Your task to perform on an android device: turn smart compose on in the gmail app Image 0: 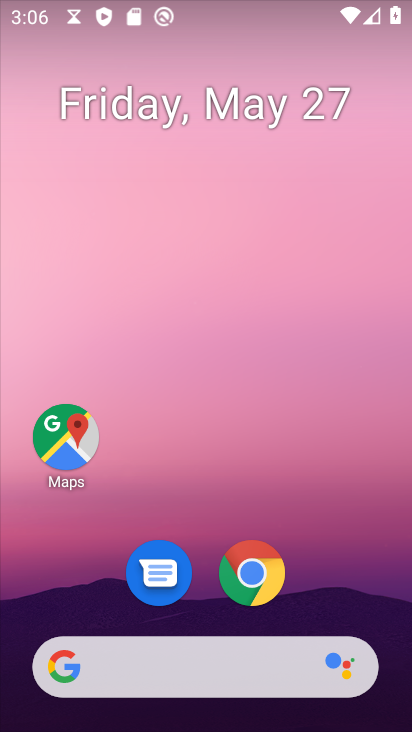
Step 0: drag from (306, 613) to (335, 23)
Your task to perform on an android device: turn smart compose on in the gmail app Image 1: 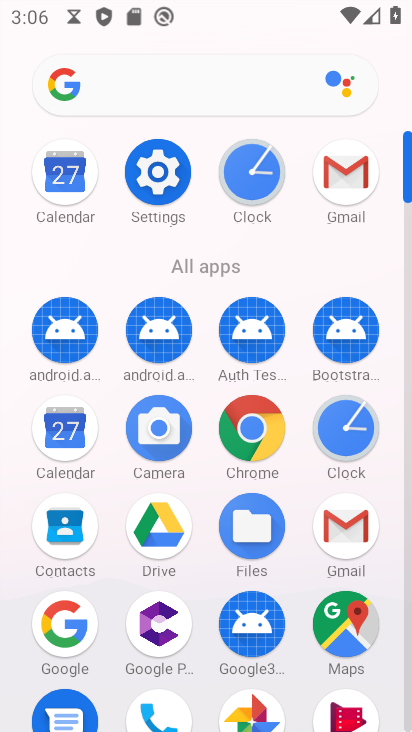
Step 1: click (354, 174)
Your task to perform on an android device: turn smart compose on in the gmail app Image 2: 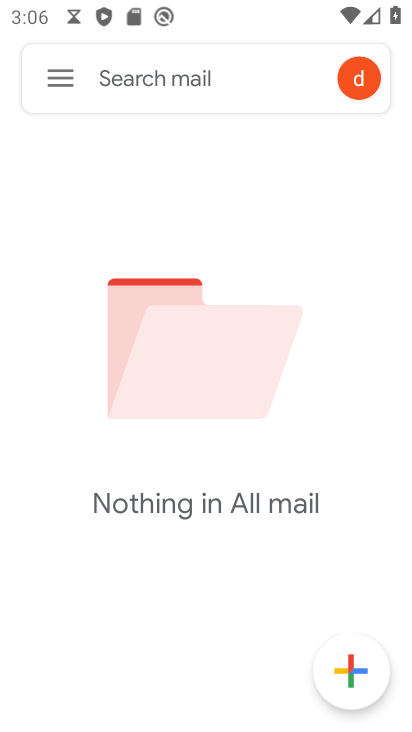
Step 2: click (55, 82)
Your task to perform on an android device: turn smart compose on in the gmail app Image 3: 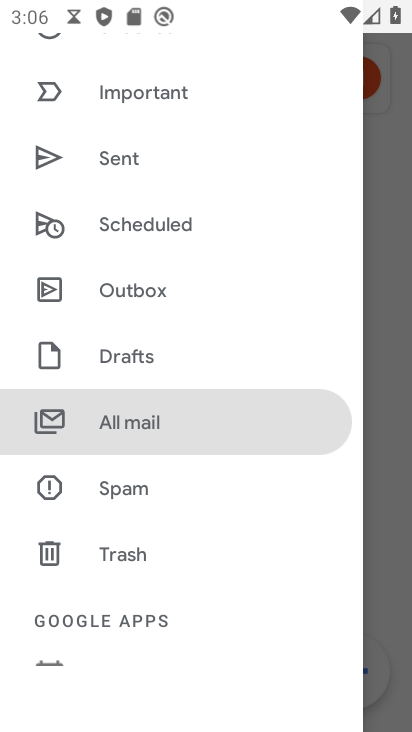
Step 3: drag from (133, 557) to (145, 109)
Your task to perform on an android device: turn smart compose on in the gmail app Image 4: 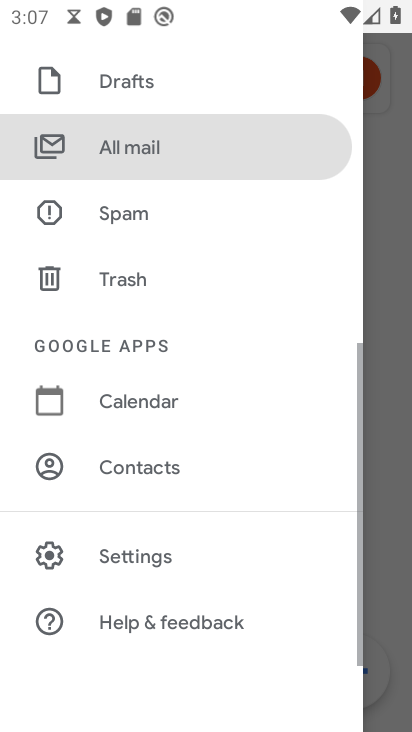
Step 4: click (181, 545)
Your task to perform on an android device: turn smart compose on in the gmail app Image 5: 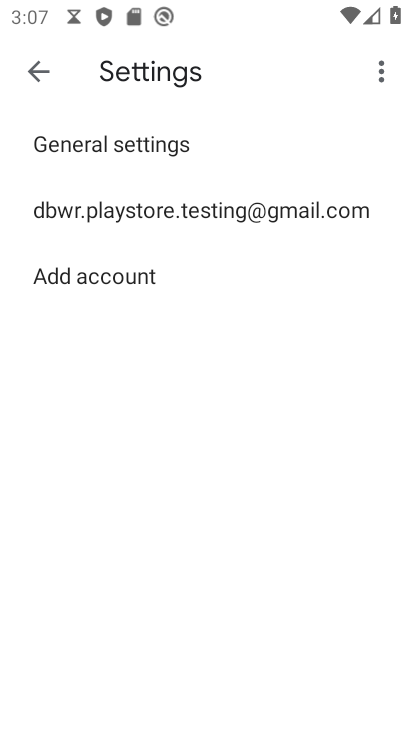
Step 5: click (208, 208)
Your task to perform on an android device: turn smart compose on in the gmail app Image 6: 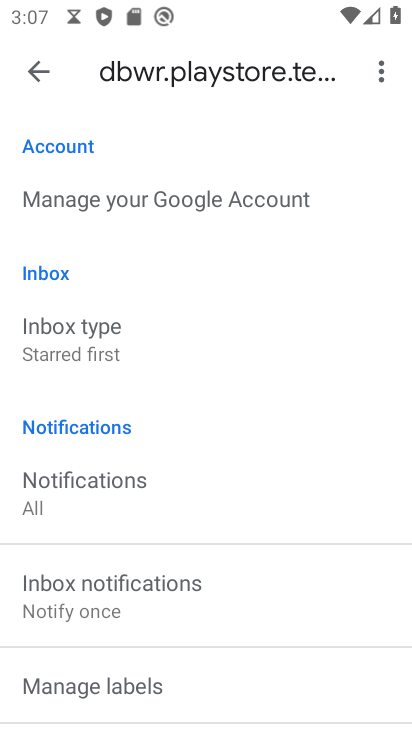
Step 6: task complete